Your task to perform on an android device: Open the calendar app, open the side menu, and click the "Day" option Image 0: 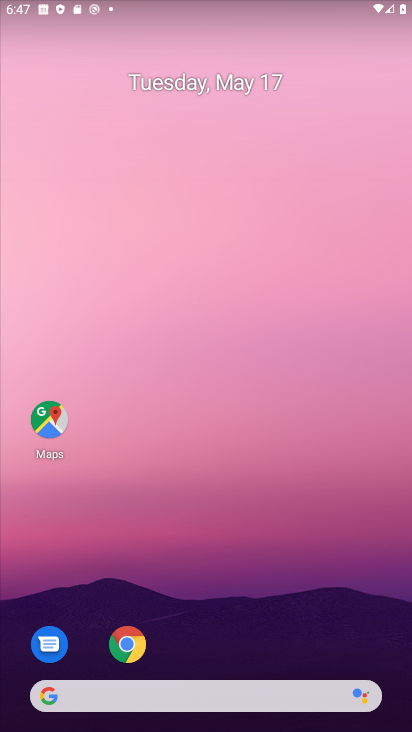
Step 0: drag from (392, 658) to (289, 99)
Your task to perform on an android device: Open the calendar app, open the side menu, and click the "Day" option Image 1: 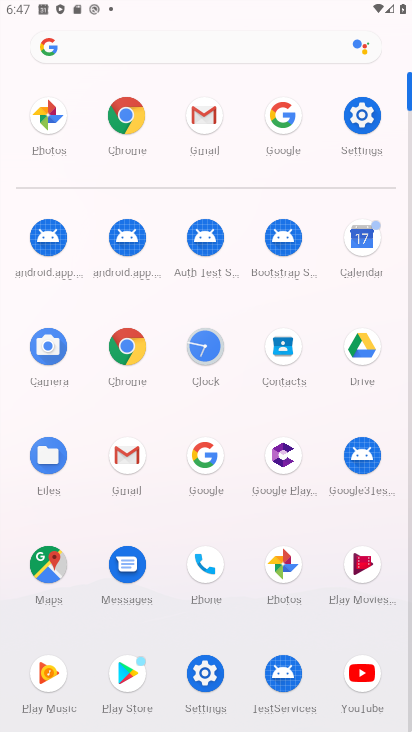
Step 1: click (355, 249)
Your task to perform on an android device: Open the calendar app, open the side menu, and click the "Day" option Image 2: 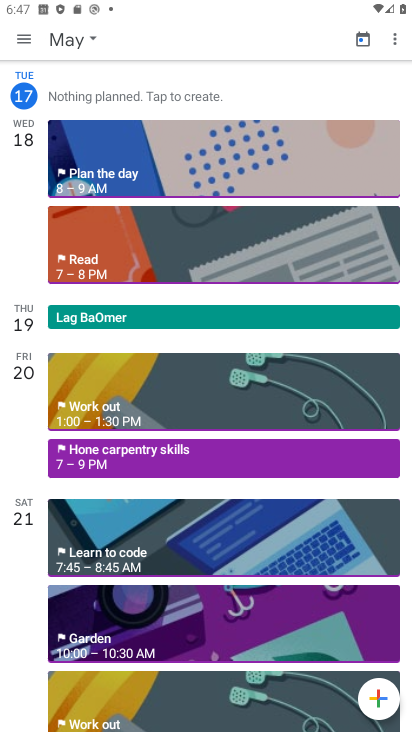
Step 2: click (26, 48)
Your task to perform on an android device: Open the calendar app, open the side menu, and click the "Day" option Image 3: 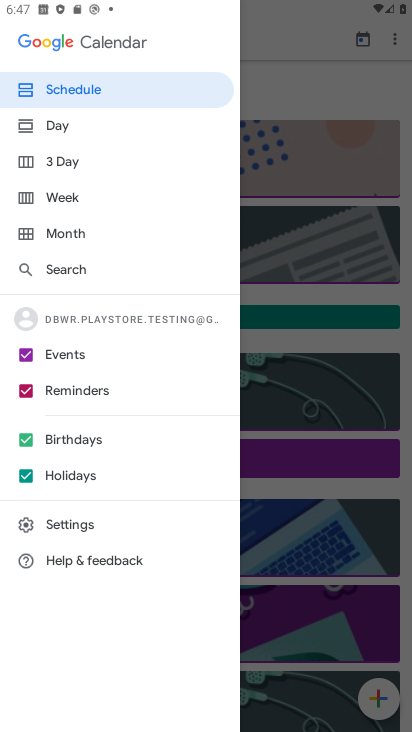
Step 3: click (59, 127)
Your task to perform on an android device: Open the calendar app, open the side menu, and click the "Day" option Image 4: 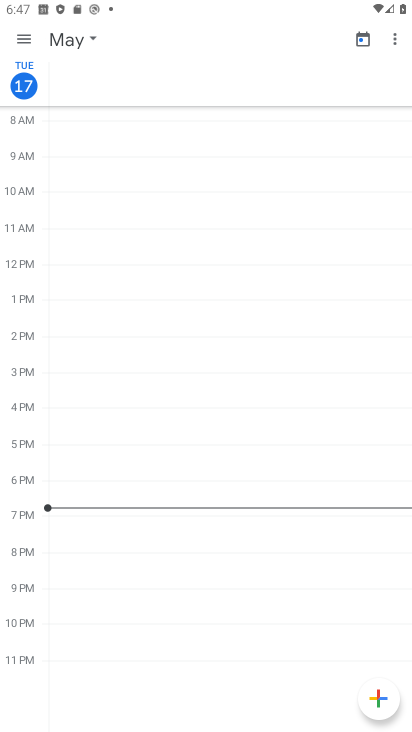
Step 4: task complete